Your task to perform on an android device: Open notification settings Image 0: 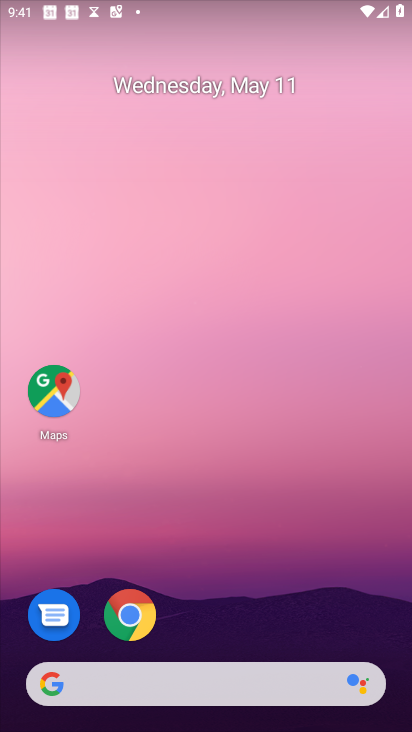
Step 0: press home button
Your task to perform on an android device: Open notification settings Image 1: 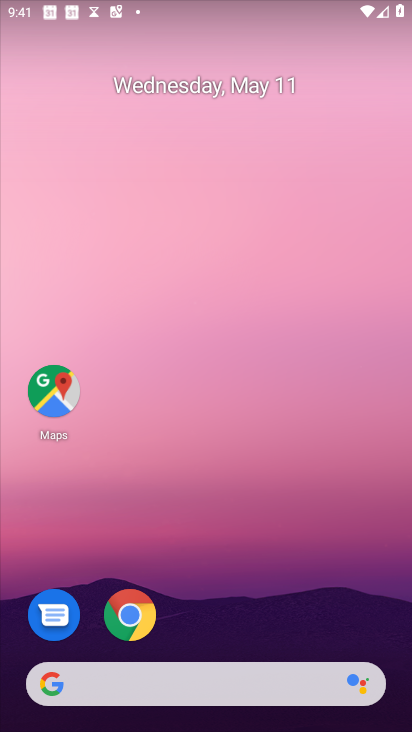
Step 1: drag from (51, 556) to (277, 109)
Your task to perform on an android device: Open notification settings Image 2: 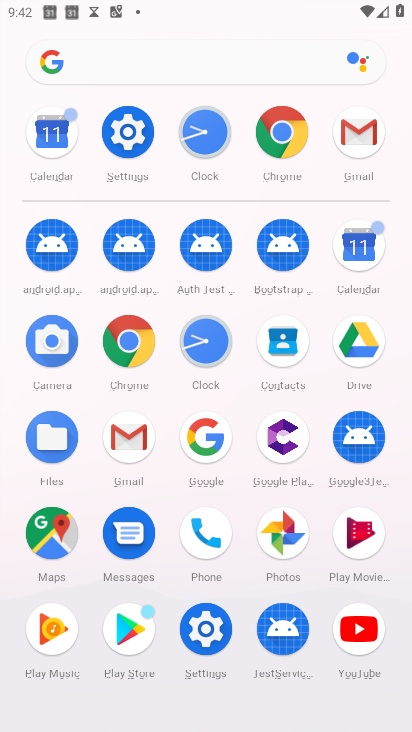
Step 2: click (125, 134)
Your task to perform on an android device: Open notification settings Image 3: 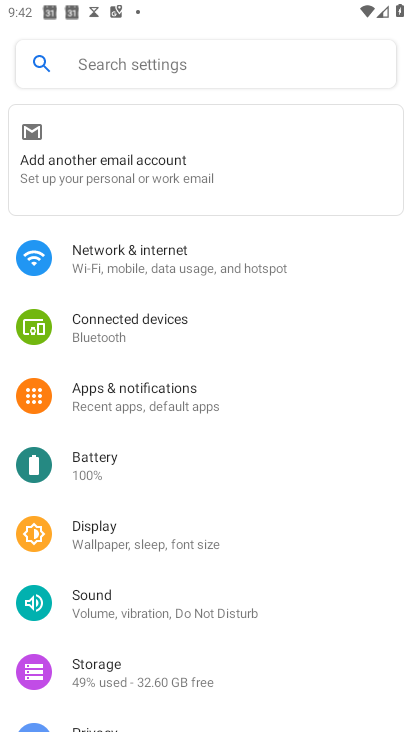
Step 3: click (155, 406)
Your task to perform on an android device: Open notification settings Image 4: 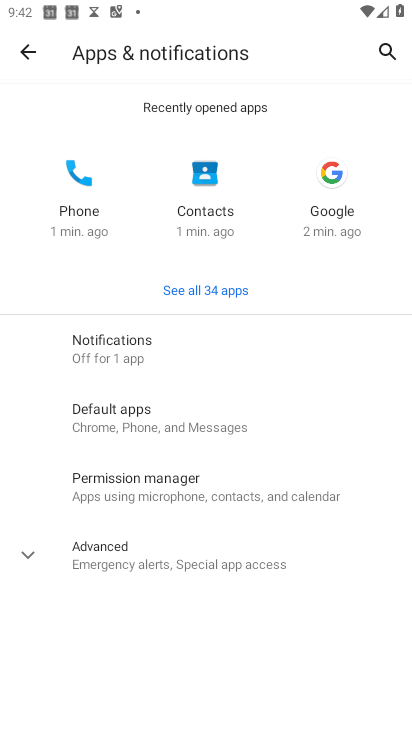
Step 4: click (161, 359)
Your task to perform on an android device: Open notification settings Image 5: 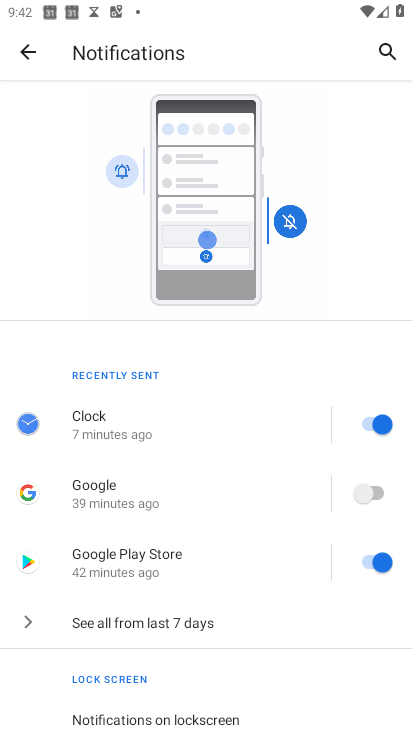
Step 5: task complete